Your task to perform on an android device: toggle javascript in the chrome app Image 0: 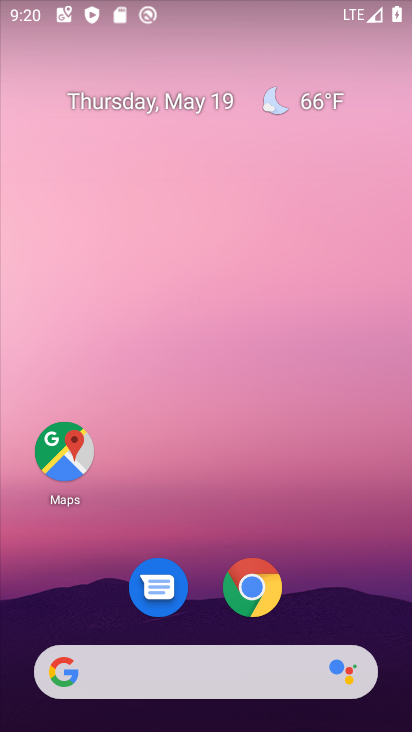
Step 0: drag from (283, 666) to (235, 229)
Your task to perform on an android device: toggle javascript in the chrome app Image 1: 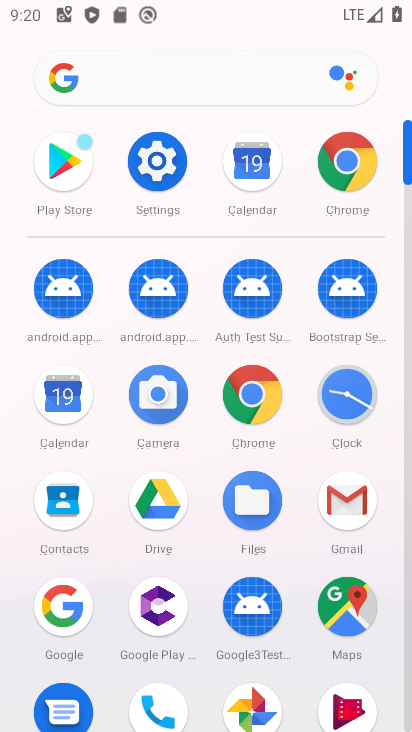
Step 1: click (350, 159)
Your task to perform on an android device: toggle javascript in the chrome app Image 2: 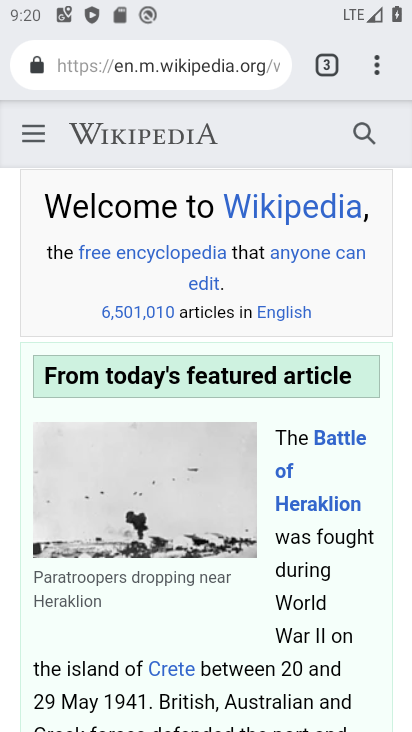
Step 2: click (363, 69)
Your task to perform on an android device: toggle javascript in the chrome app Image 3: 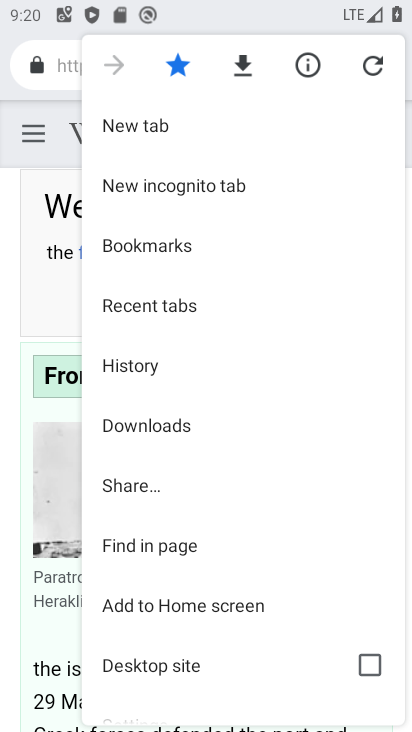
Step 3: drag from (157, 629) to (208, 476)
Your task to perform on an android device: toggle javascript in the chrome app Image 4: 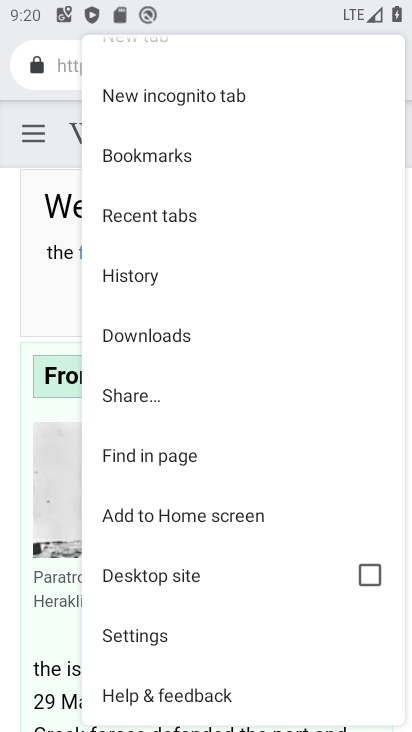
Step 4: click (178, 640)
Your task to perform on an android device: toggle javascript in the chrome app Image 5: 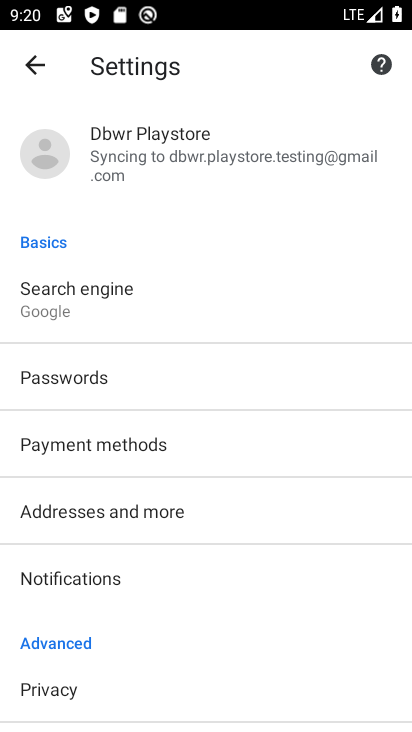
Step 5: drag from (184, 557) to (233, 360)
Your task to perform on an android device: toggle javascript in the chrome app Image 6: 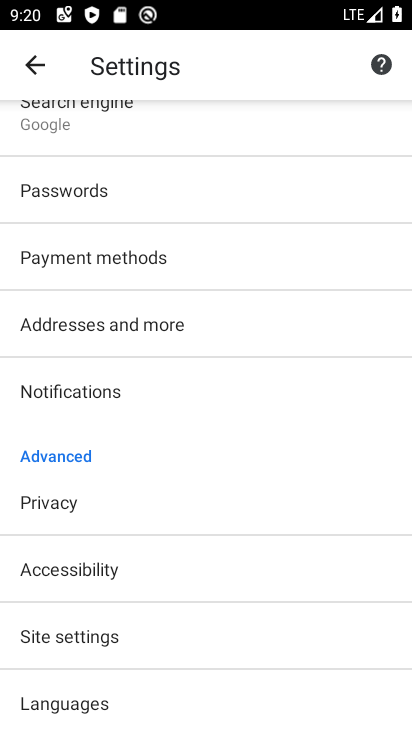
Step 6: click (137, 634)
Your task to perform on an android device: toggle javascript in the chrome app Image 7: 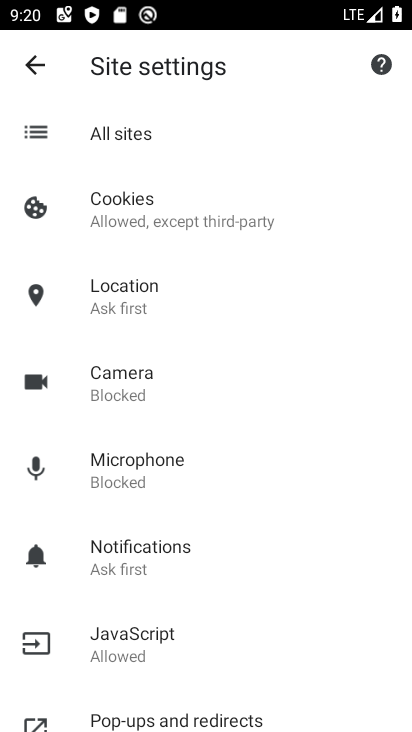
Step 7: click (126, 633)
Your task to perform on an android device: toggle javascript in the chrome app Image 8: 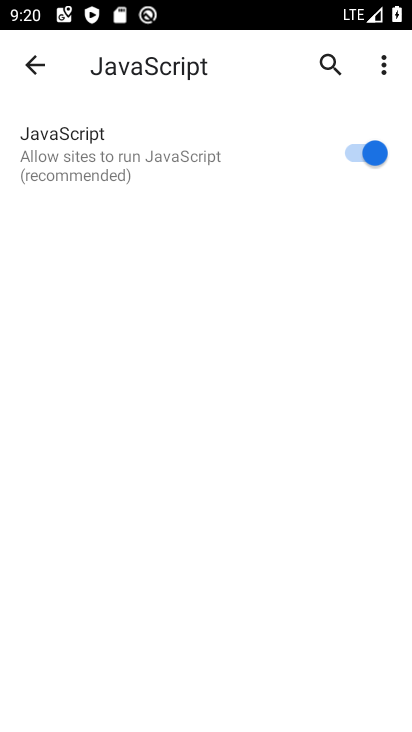
Step 8: task complete